Your task to perform on an android device: see tabs open on other devices in the chrome app Image 0: 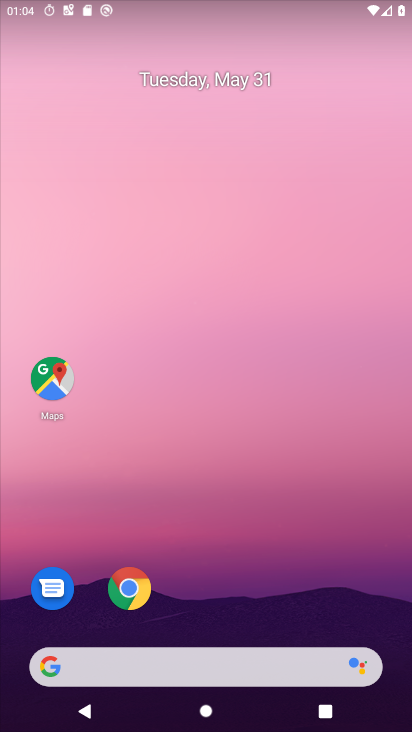
Step 0: drag from (94, 644) to (150, 75)
Your task to perform on an android device: see tabs open on other devices in the chrome app Image 1: 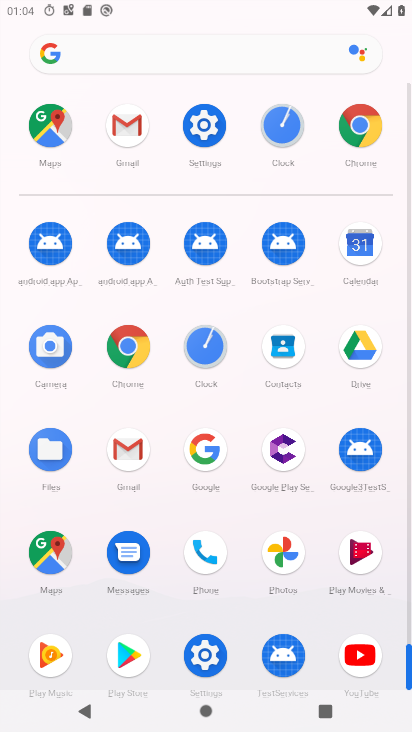
Step 1: click (120, 346)
Your task to perform on an android device: see tabs open on other devices in the chrome app Image 2: 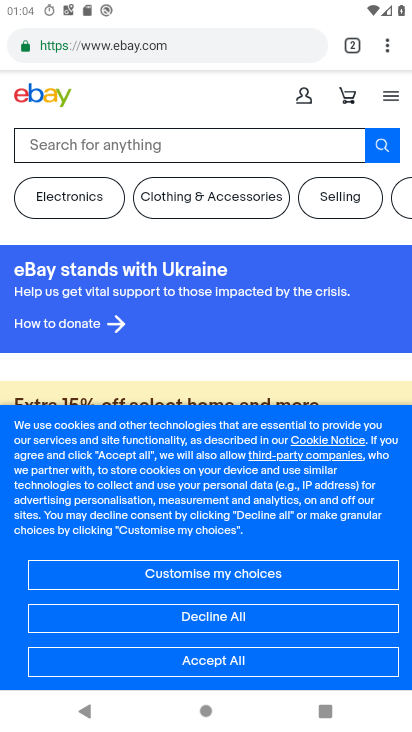
Step 2: click (380, 38)
Your task to perform on an android device: see tabs open on other devices in the chrome app Image 3: 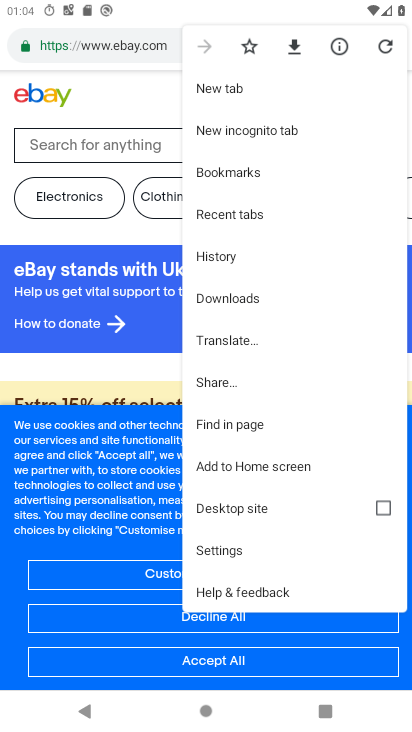
Step 3: click (259, 213)
Your task to perform on an android device: see tabs open on other devices in the chrome app Image 4: 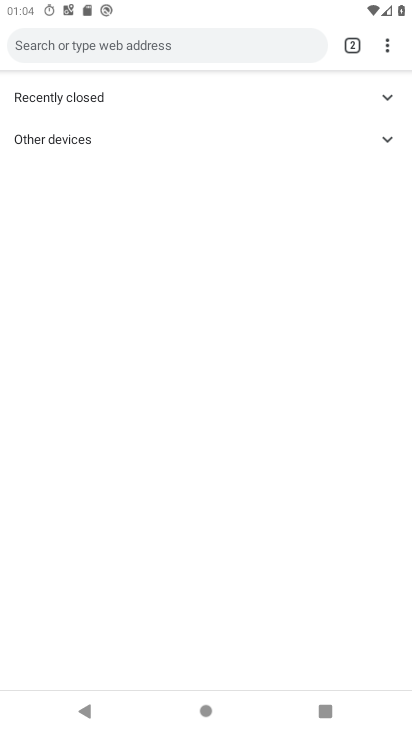
Step 4: task complete